Your task to perform on an android device: What is the news today? Image 0: 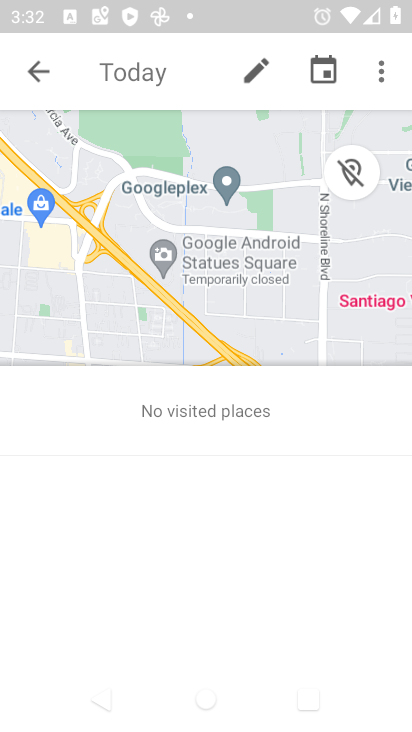
Step 0: press home button
Your task to perform on an android device: What is the news today? Image 1: 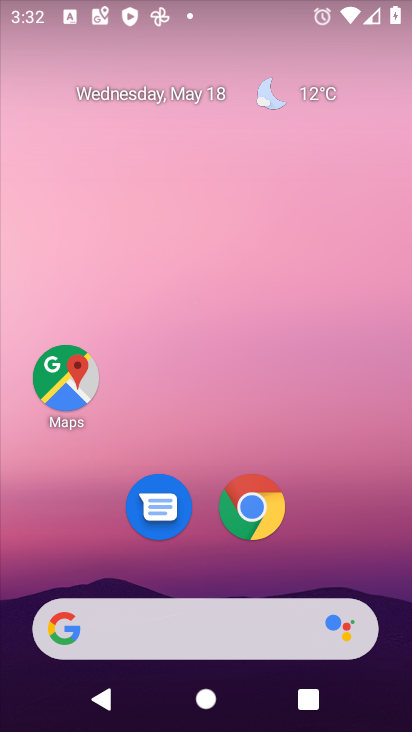
Step 1: task complete